Your task to perform on an android device: turn off translation in the chrome app Image 0: 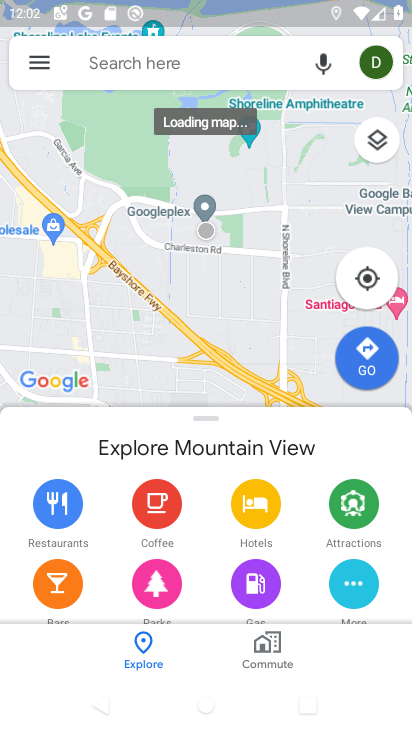
Step 0: press home button
Your task to perform on an android device: turn off translation in the chrome app Image 1: 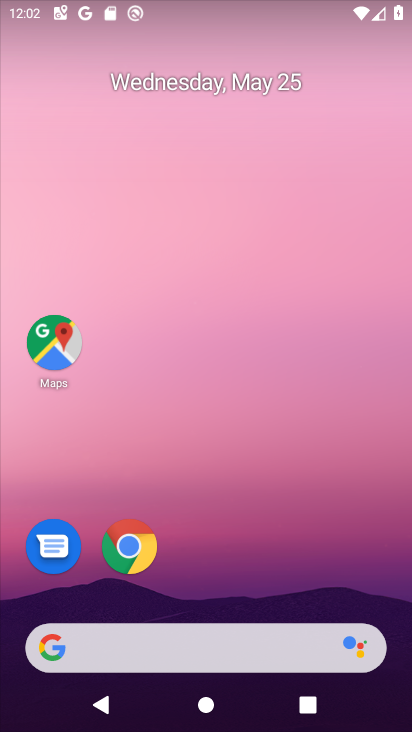
Step 1: click (143, 550)
Your task to perform on an android device: turn off translation in the chrome app Image 2: 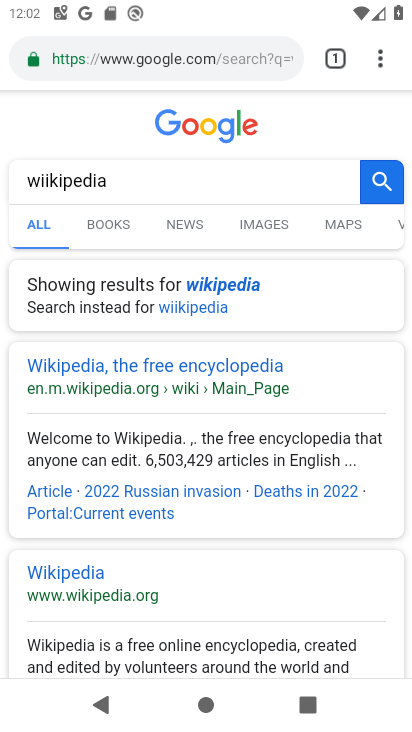
Step 2: click (378, 54)
Your task to perform on an android device: turn off translation in the chrome app Image 3: 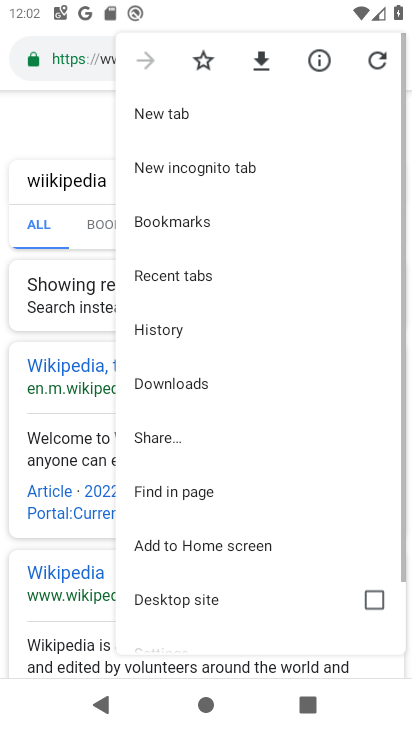
Step 3: drag from (174, 593) to (170, 258)
Your task to perform on an android device: turn off translation in the chrome app Image 4: 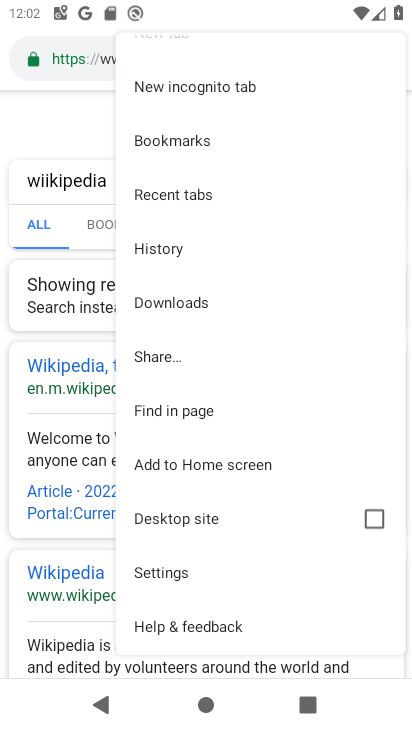
Step 4: click (153, 571)
Your task to perform on an android device: turn off translation in the chrome app Image 5: 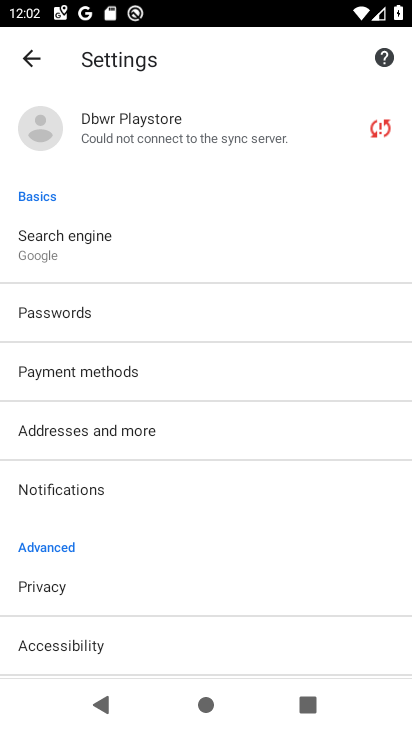
Step 5: drag from (125, 604) to (176, 239)
Your task to perform on an android device: turn off translation in the chrome app Image 6: 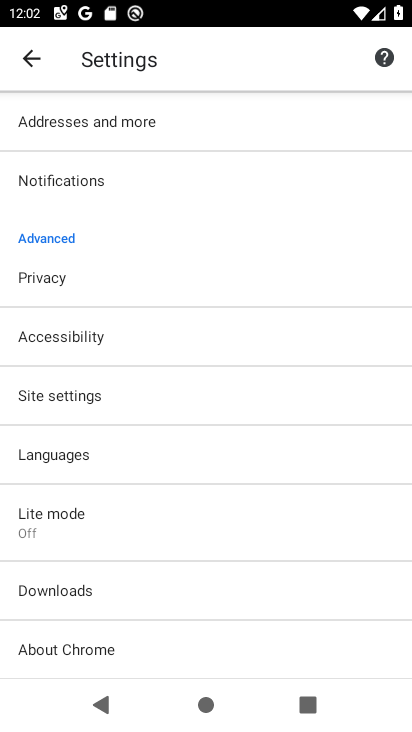
Step 6: click (76, 449)
Your task to perform on an android device: turn off translation in the chrome app Image 7: 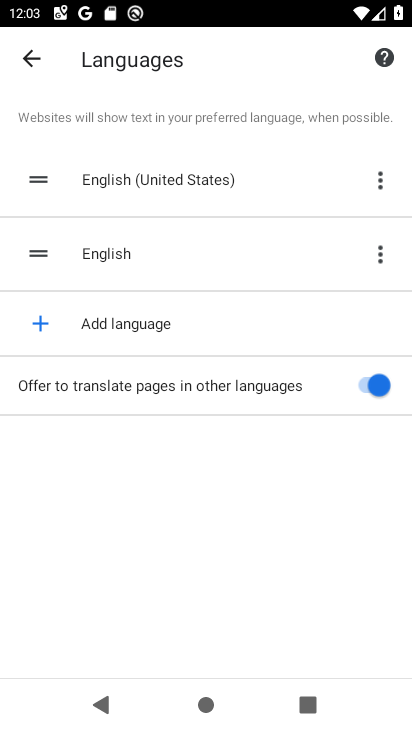
Step 7: click (361, 386)
Your task to perform on an android device: turn off translation in the chrome app Image 8: 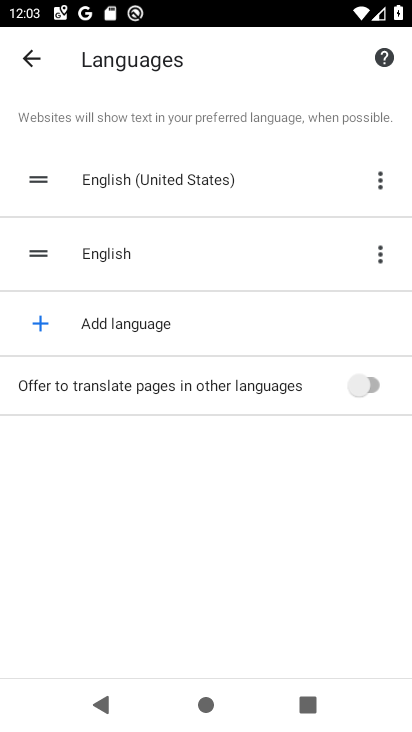
Step 8: task complete